Your task to perform on an android device: turn pop-ups on in chrome Image 0: 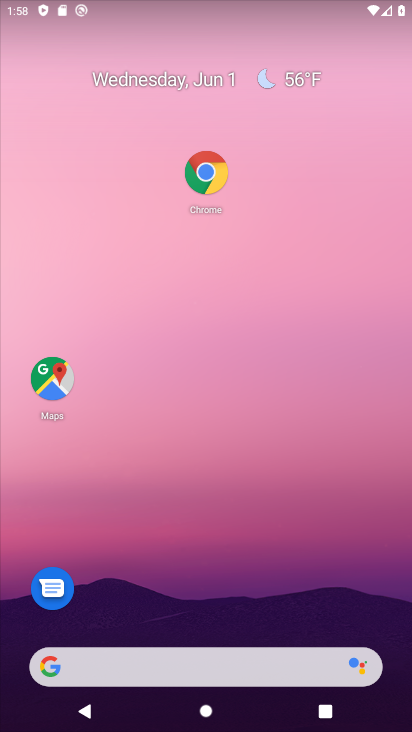
Step 0: click (204, 175)
Your task to perform on an android device: turn pop-ups on in chrome Image 1: 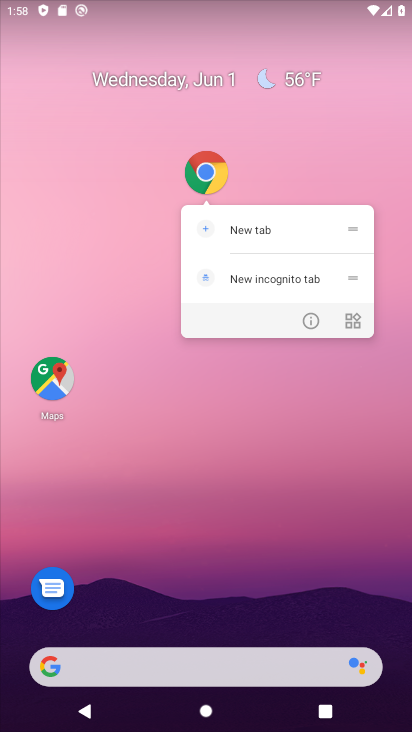
Step 1: click (204, 175)
Your task to perform on an android device: turn pop-ups on in chrome Image 2: 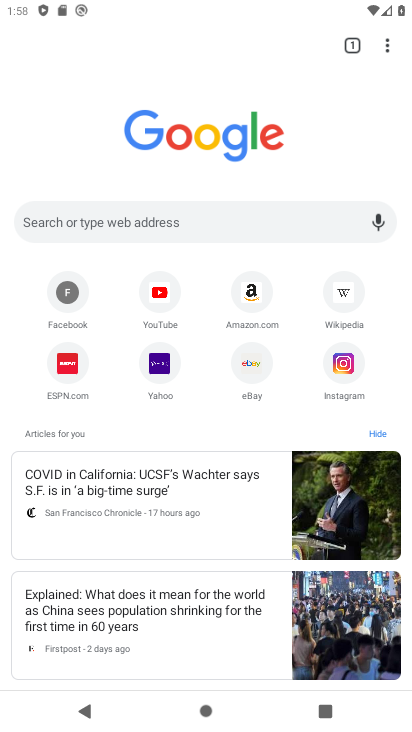
Step 2: click (383, 52)
Your task to perform on an android device: turn pop-ups on in chrome Image 3: 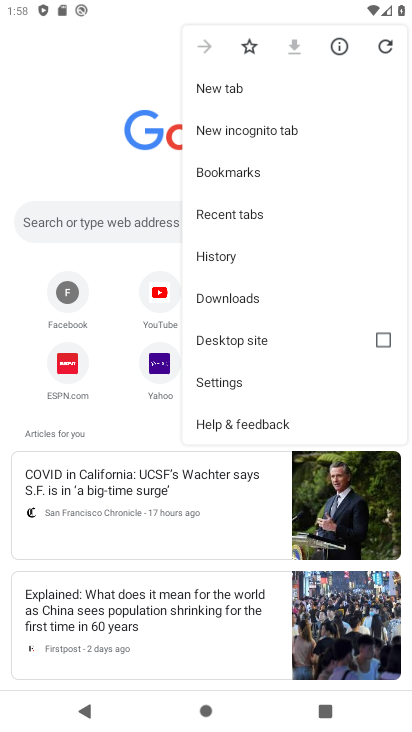
Step 3: click (232, 387)
Your task to perform on an android device: turn pop-ups on in chrome Image 4: 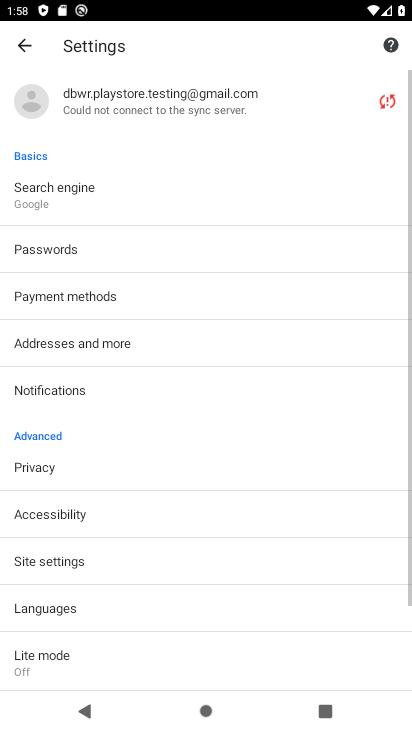
Step 4: click (40, 563)
Your task to perform on an android device: turn pop-ups on in chrome Image 5: 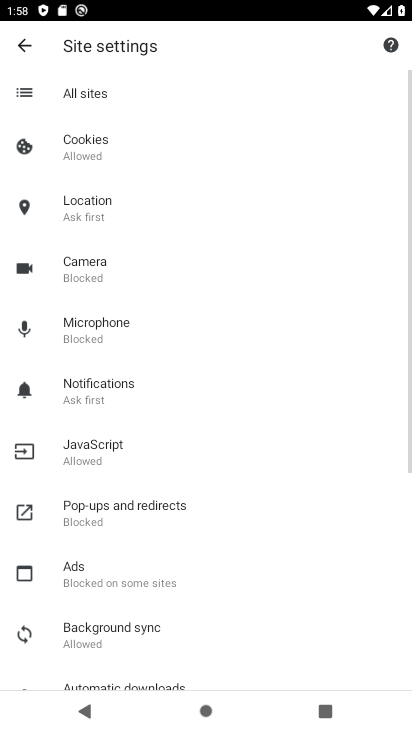
Step 5: click (99, 512)
Your task to perform on an android device: turn pop-ups on in chrome Image 6: 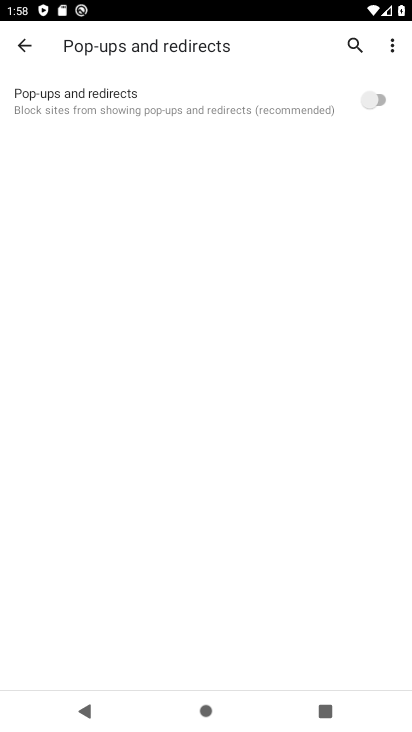
Step 6: click (379, 91)
Your task to perform on an android device: turn pop-ups on in chrome Image 7: 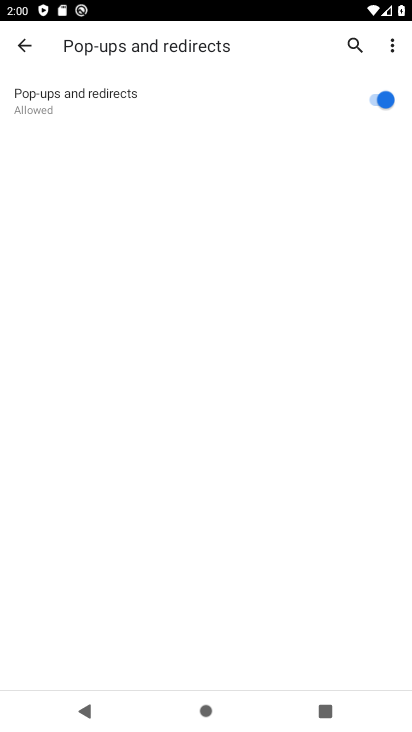
Step 7: task complete